Your task to perform on an android device: turn off picture-in-picture Image 0: 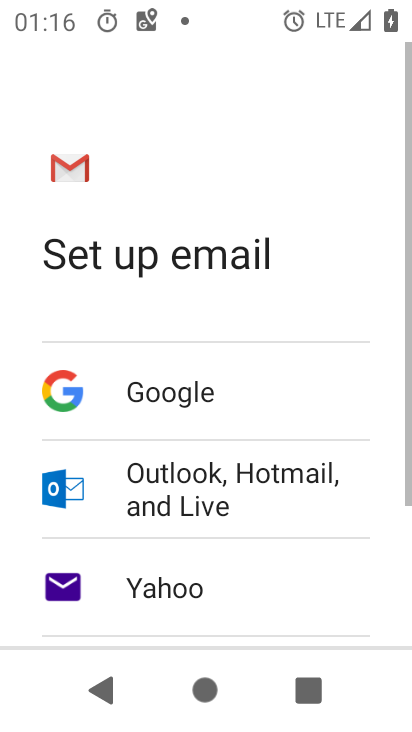
Step 0: press home button
Your task to perform on an android device: turn off picture-in-picture Image 1: 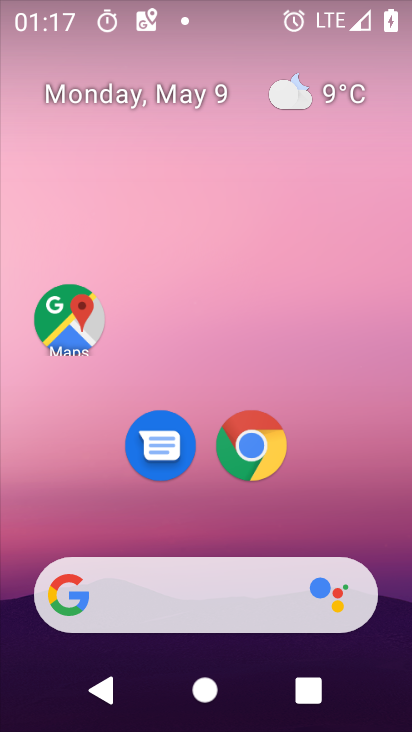
Step 1: click (252, 462)
Your task to perform on an android device: turn off picture-in-picture Image 2: 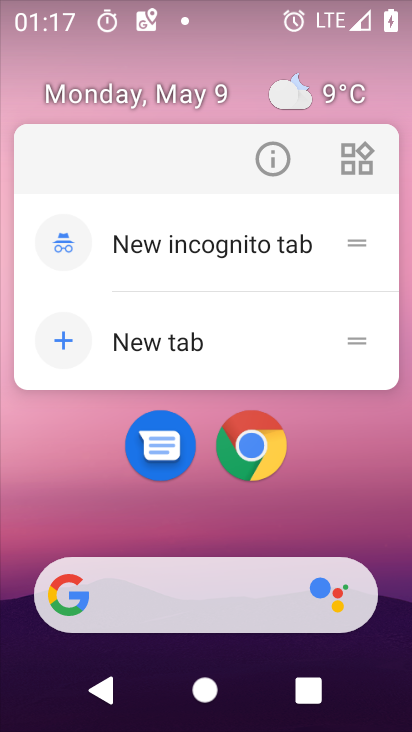
Step 2: click (278, 165)
Your task to perform on an android device: turn off picture-in-picture Image 3: 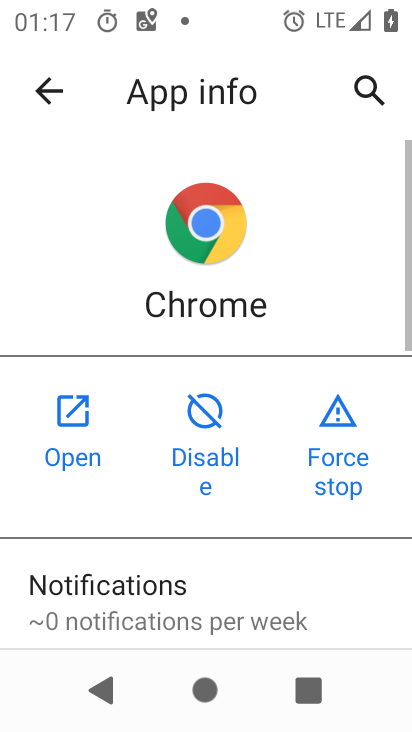
Step 3: drag from (226, 565) to (245, 107)
Your task to perform on an android device: turn off picture-in-picture Image 4: 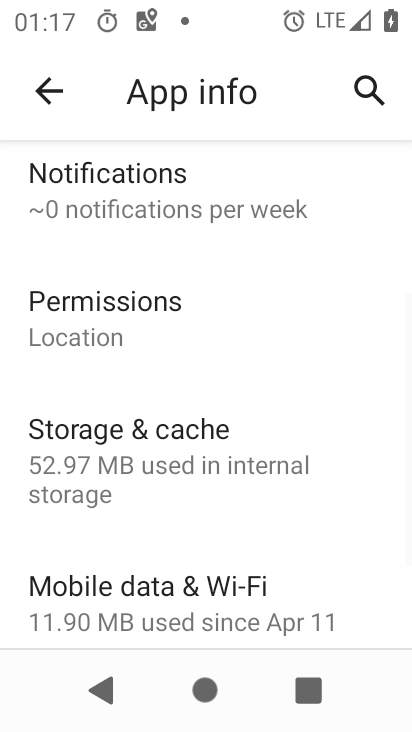
Step 4: drag from (168, 446) to (172, 147)
Your task to perform on an android device: turn off picture-in-picture Image 5: 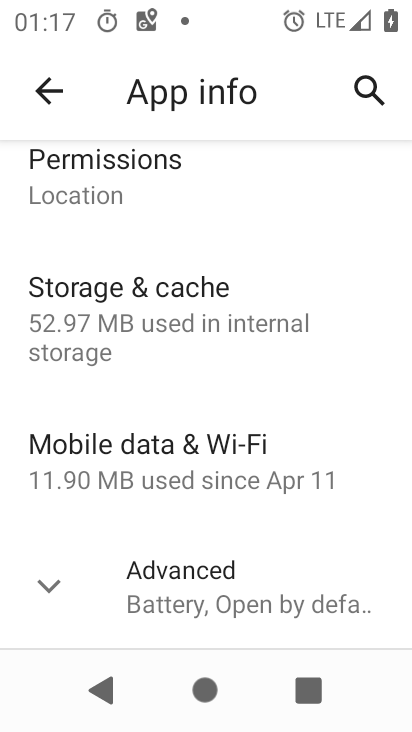
Step 5: click (44, 602)
Your task to perform on an android device: turn off picture-in-picture Image 6: 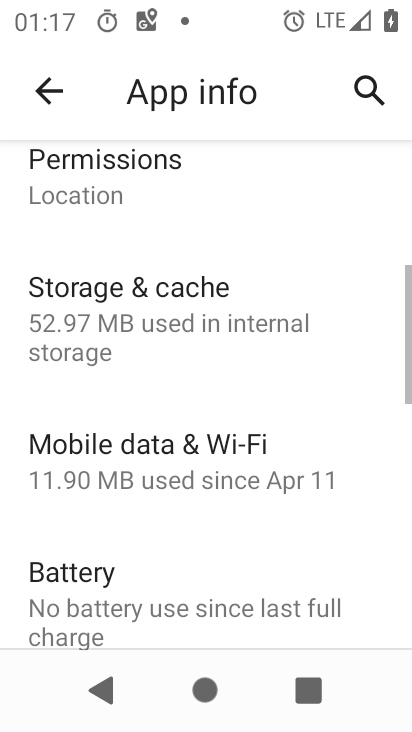
Step 6: drag from (134, 596) to (195, 199)
Your task to perform on an android device: turn off picture-in-picture Image 7: 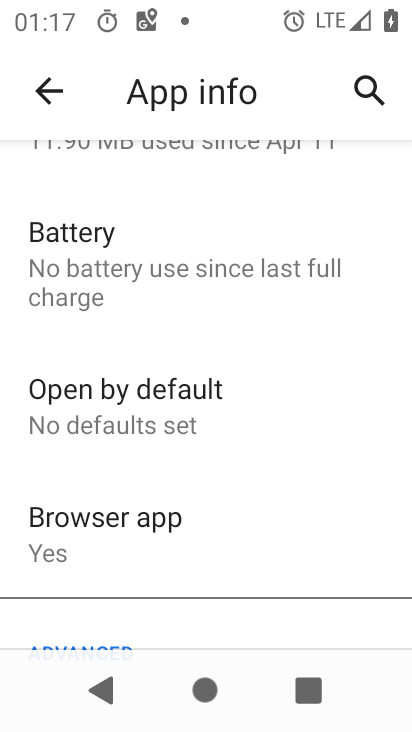
Step 7: drag from (237, 508) to (235, 212)
Your task to perform on an android device: turn off picture-in-picture Image 8: 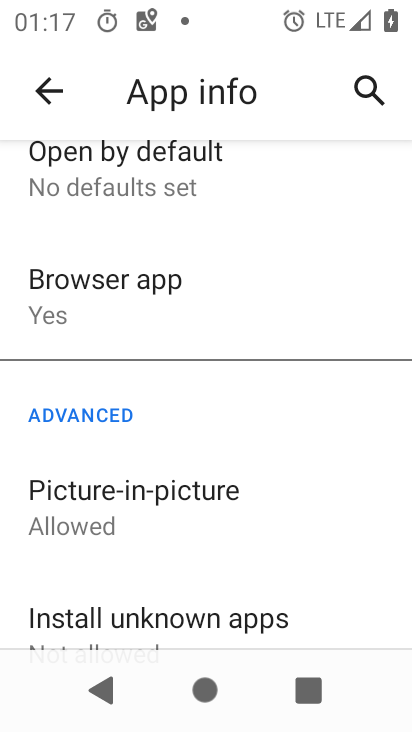
Step 8: drag from (220, 511) to (223, 241)
Your task to perform on an android device: turn off picture-in-picture Image 9: 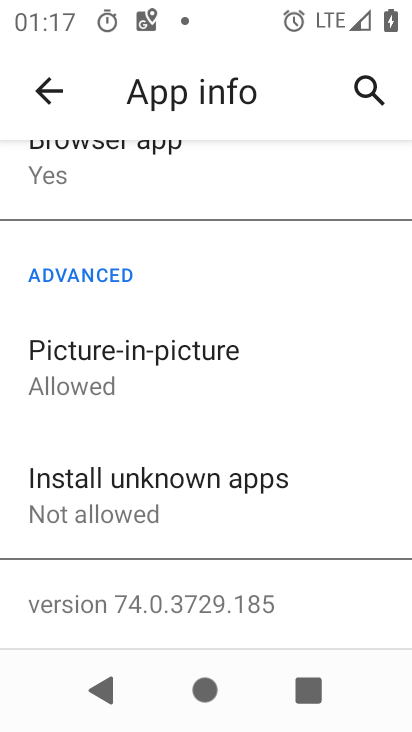
Step 9: click (83, 373)
Your task to perform on an android device: turn off picture-in-picture Image 10: 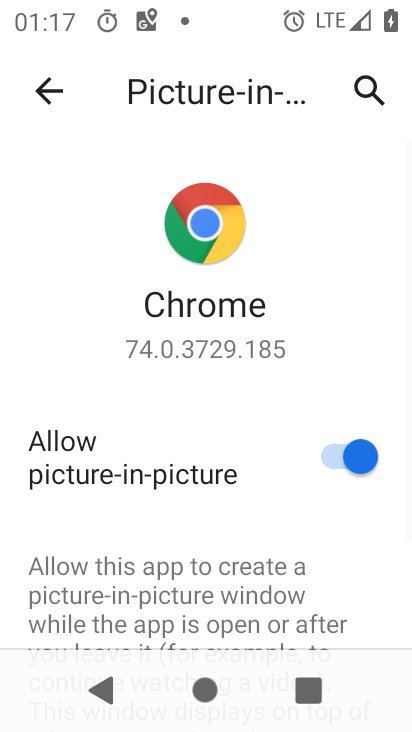
Step 10: click (345, 465)
Your task to perform on an android device: turn off picture-in-picture Image 11: 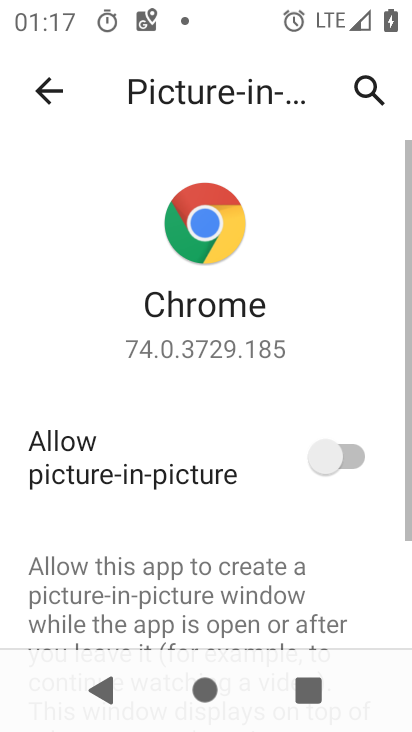
Step 11: task complete